Your task to perform on an android device: What is the news today? Image 0: 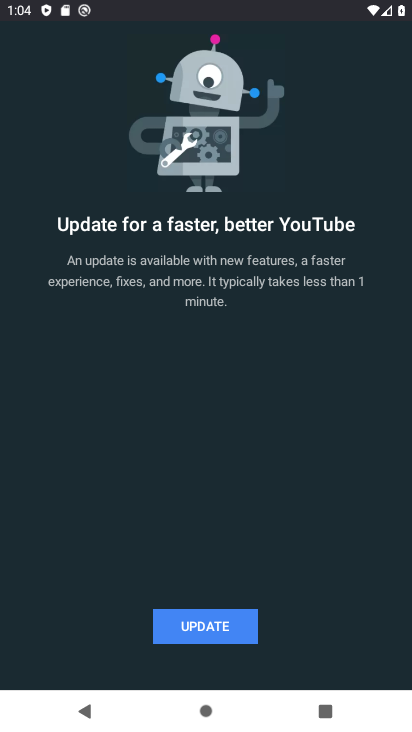
Step 0: press home button
Your task to perform on an android device: What is the news today? Image 1: 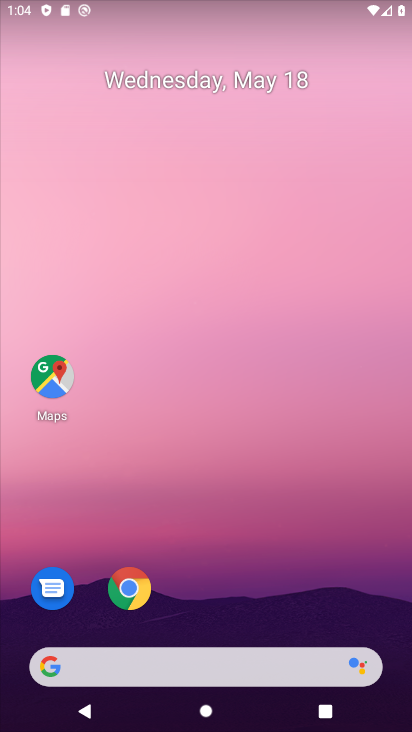
Step 1: task complete